Your task to perform on an android device: Go to sound settings Image 0: 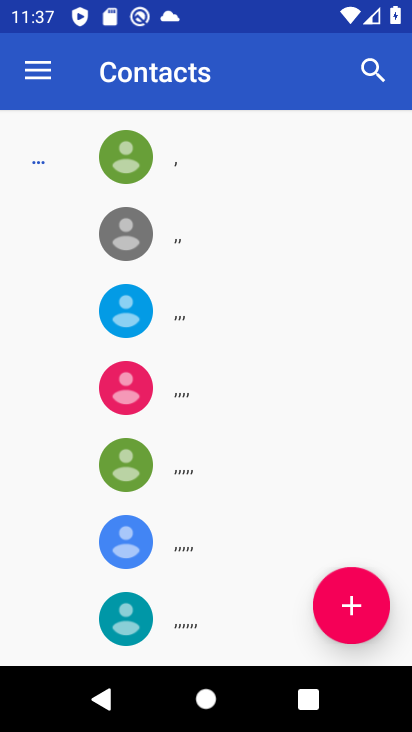
Step 0: press home button
Your task to perform on an android device: Go to sound settings Image 1: 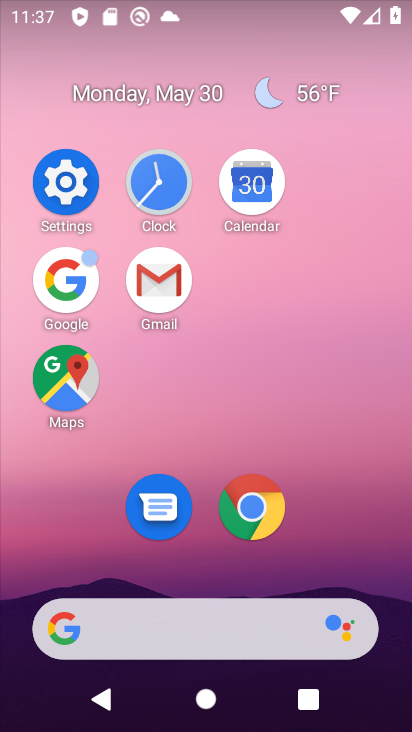
Step 1: click (73, 166)
Your task to perform on an android device: Go to sound settings Image 2: 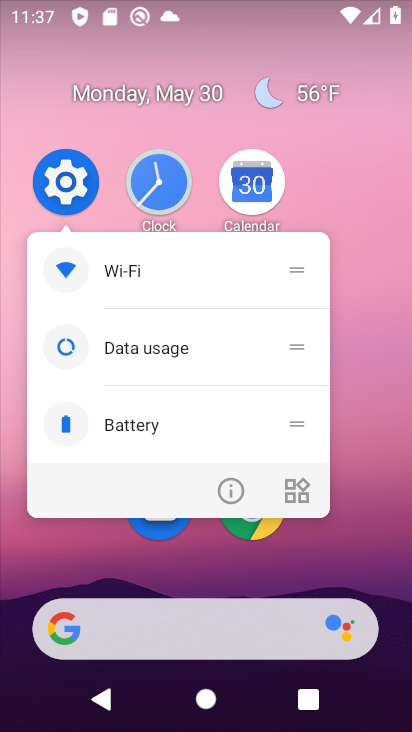
Step 2: click (79, 168)
Your task to perform on an android device: Go to sound settings Image 3: 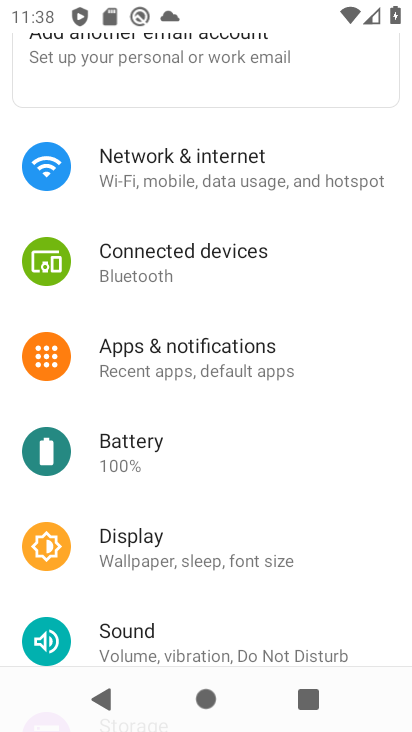
Step 3: click (193, 631)
Your task to perform on an android device: Go to sound settings Image 4: 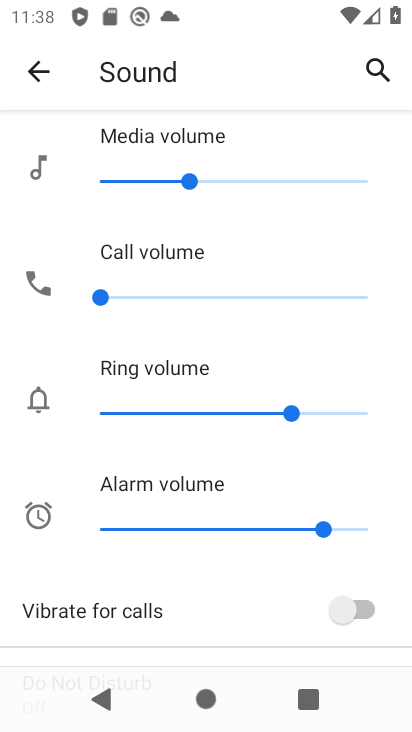
Step 4: task complete